Your task to perform on an android device: Open Chrome and go to the settings page Image 0: 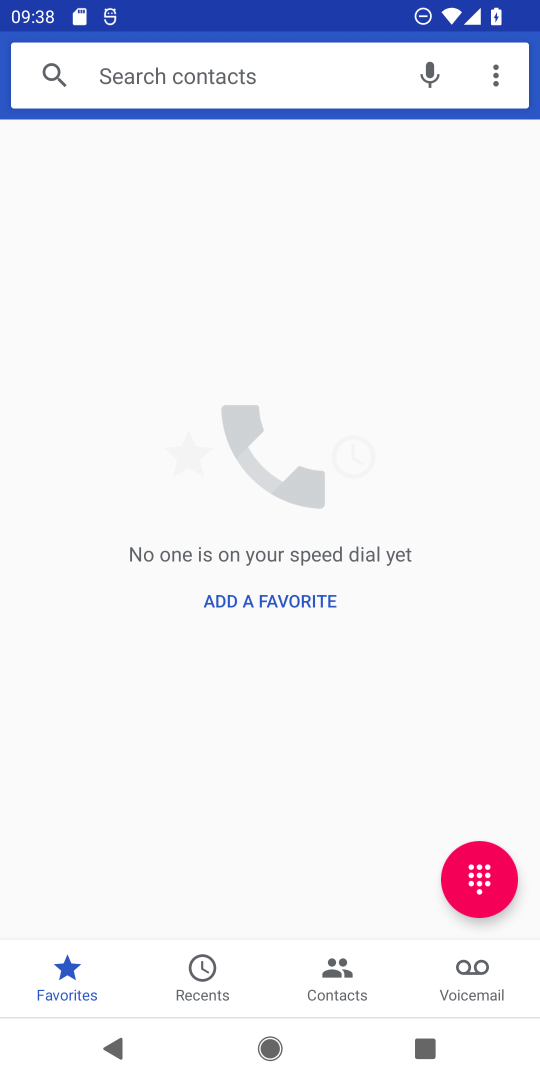
Step 0: press home button
Your task to perform on an android device: Open Chrome and go to the settings page Image 1: 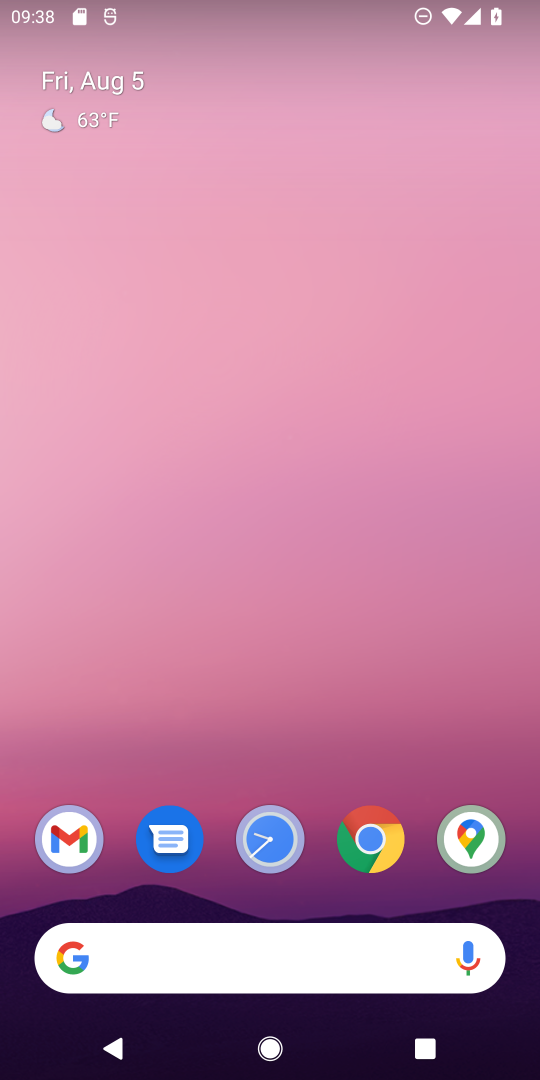
Step 1: click (369, 832)
Your task to perform on an android device: Open Chrome and go to the settings page Image 2: 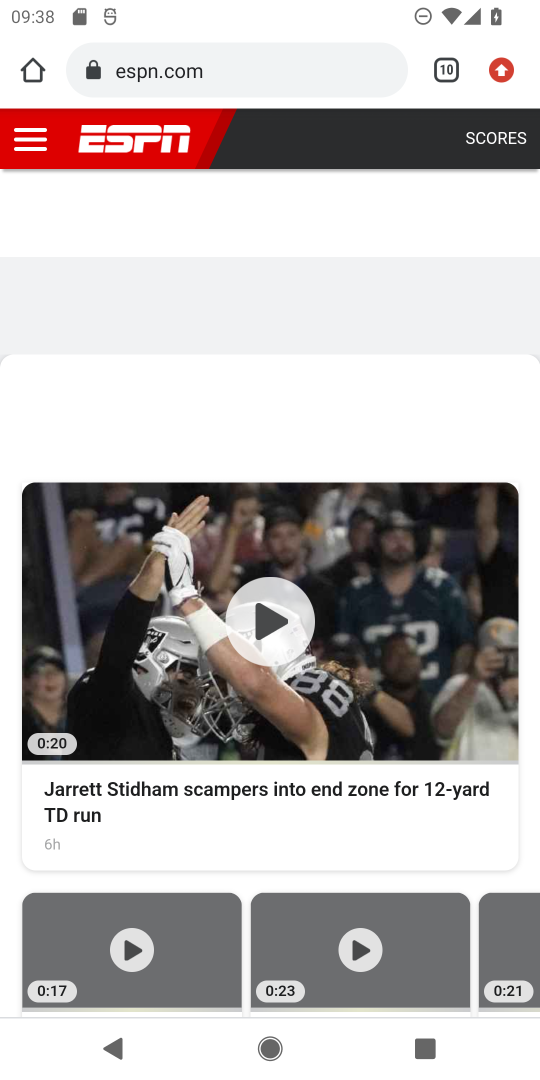
Step 2: click (502, 77)
Your task to perform on an android device: Open Chrome and go to the settings page Image 3: 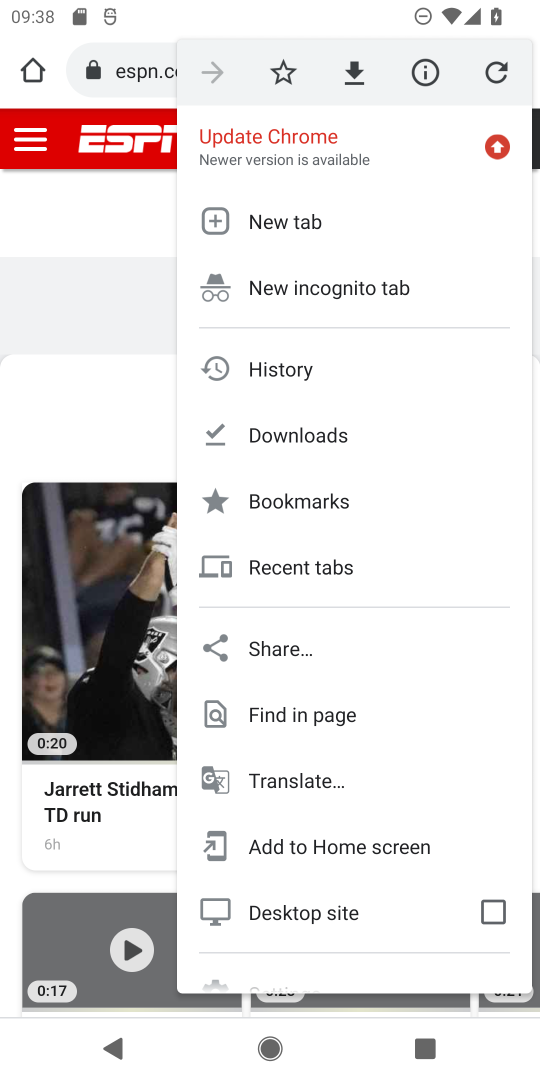
Step 3: drag from (321, 854) to (321, 374)
Your task to perform on an android device: Open Chrome and go to the settings page Image 4: 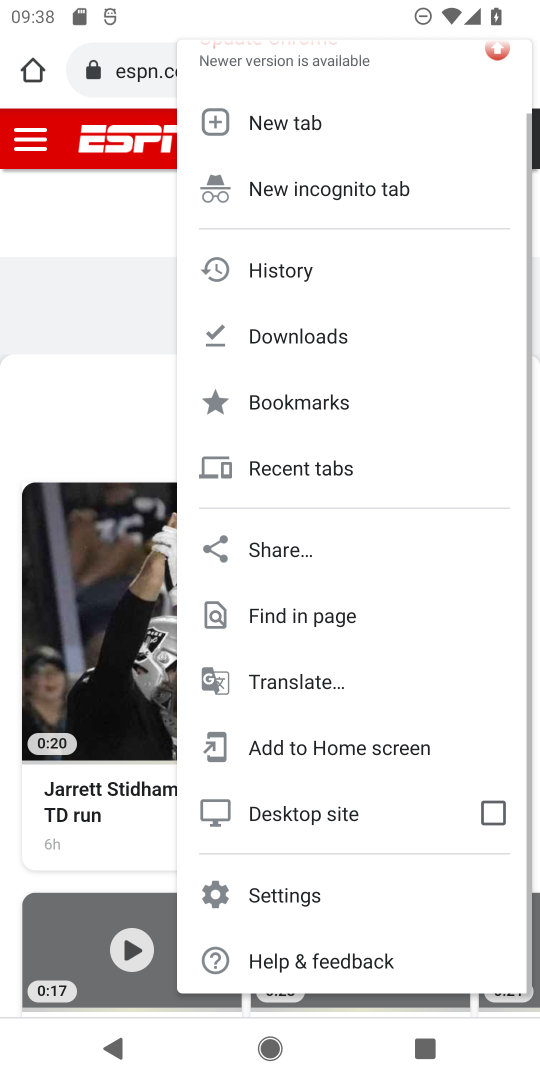
Step 4: click (283, 885)
Your task to perform on an android device: Open Chrome and go to the settings page Image 5: 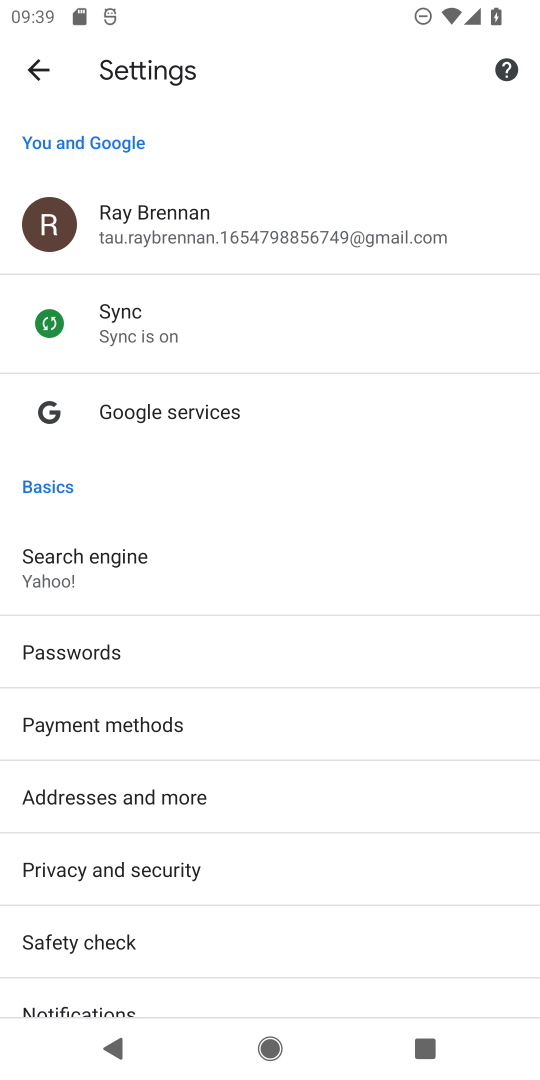
Step 5: task complete